Your task to perform on an android device: Is it going to rain this weekend? Image 0: 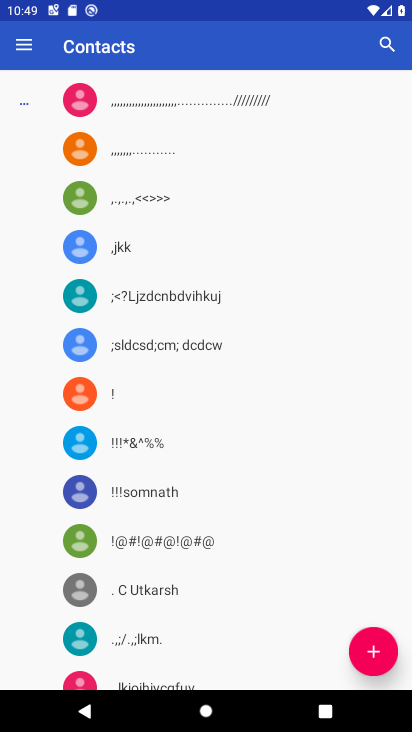
Step 0: press home button
Your task to perform on an android device: Is it going to rain this weekend? Image 1: 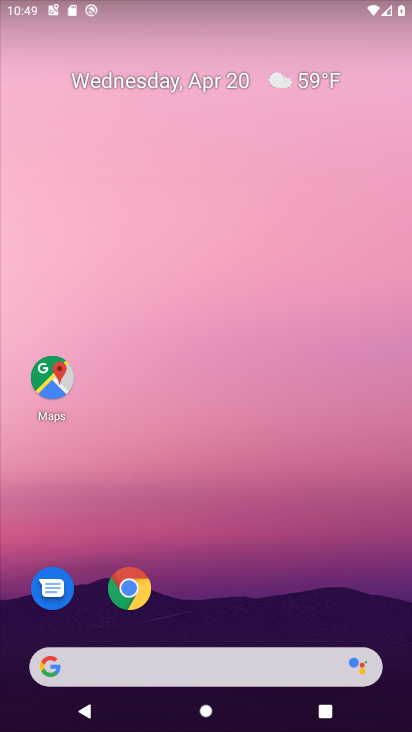
Step 1: click (285, 78)
Your task to perform on an android device: Is it going to rain this weekend? Image 2: 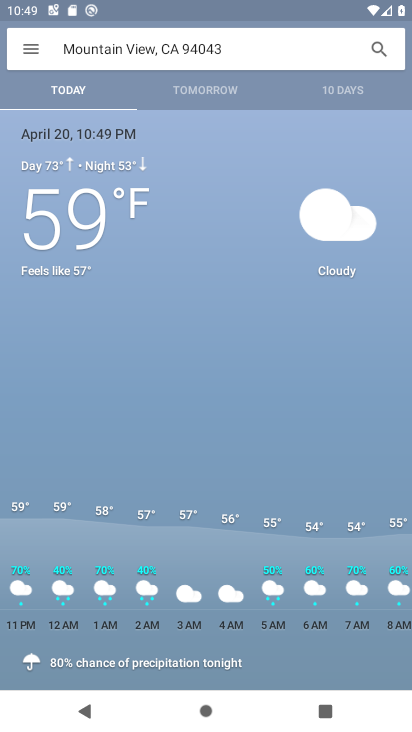
Step 2: click (339, 93)
Your task to perform on an android device: Is it going to rain this weekend? Image 3: 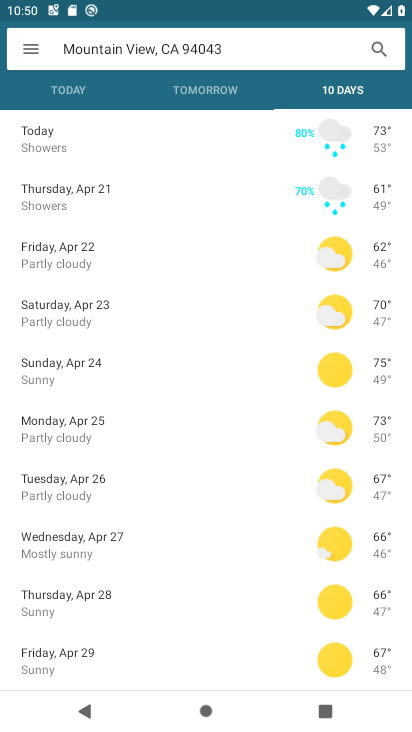
Step 3: task complete